Your task to perform on an android device: Search for razer blade on bestbuy.com, select the first entry, add it to the cart, then select checkout. Image 0: 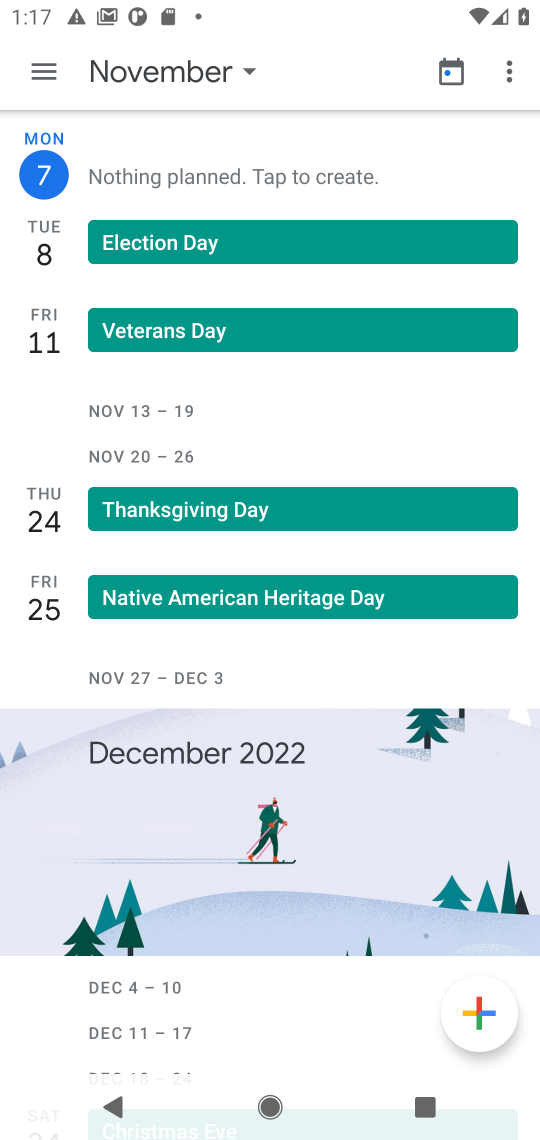
Step 0: press home button
Your task to perform on an android device: Search for razer blade on bestbuy.com, select the first entry, add it to the cart, then select checkout. Image 1: 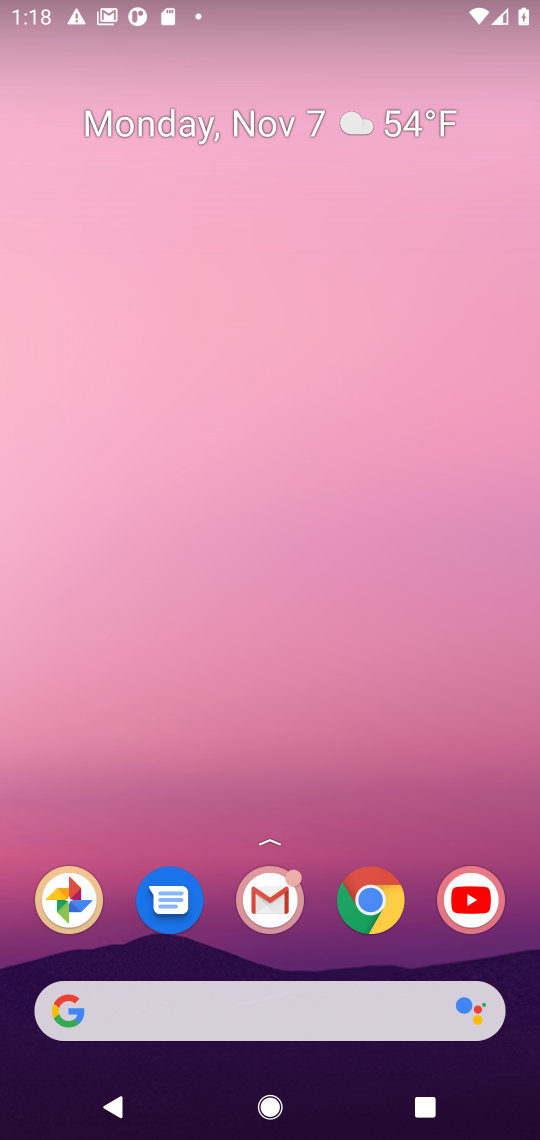
Step 1: click (315, 1029)
Your task to perform on an android device: Search for razer blade on bestbuy.com, select the first entry, add it to the cart, then select checkout. Image 2: 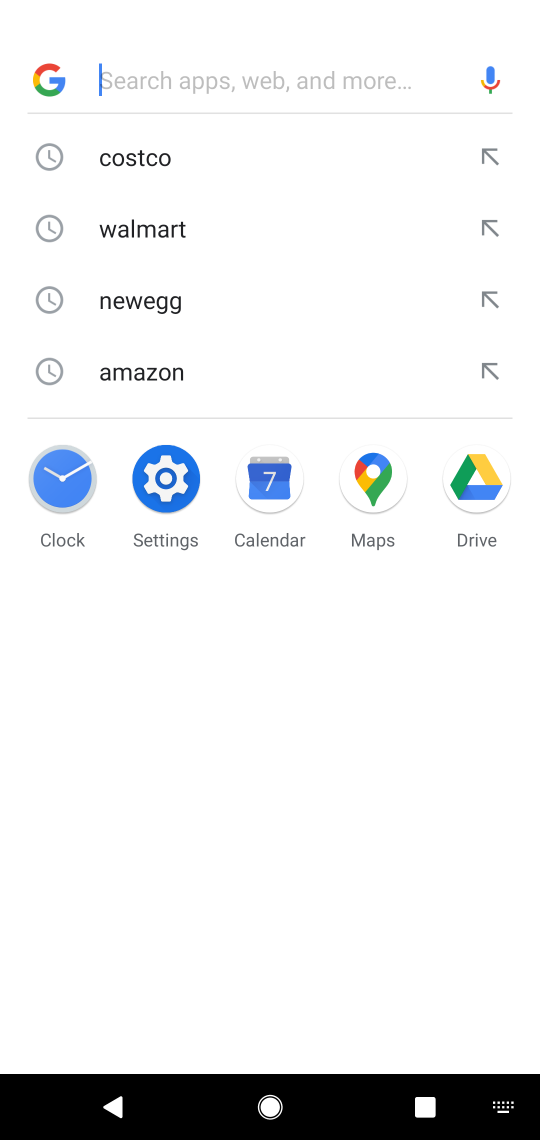
Step 2: type "betsbuy"
Your task to perform on an android device: Search for razer blade on bestbuy.com, select the first entry, add it to the cart, then select checkout. Image 3: 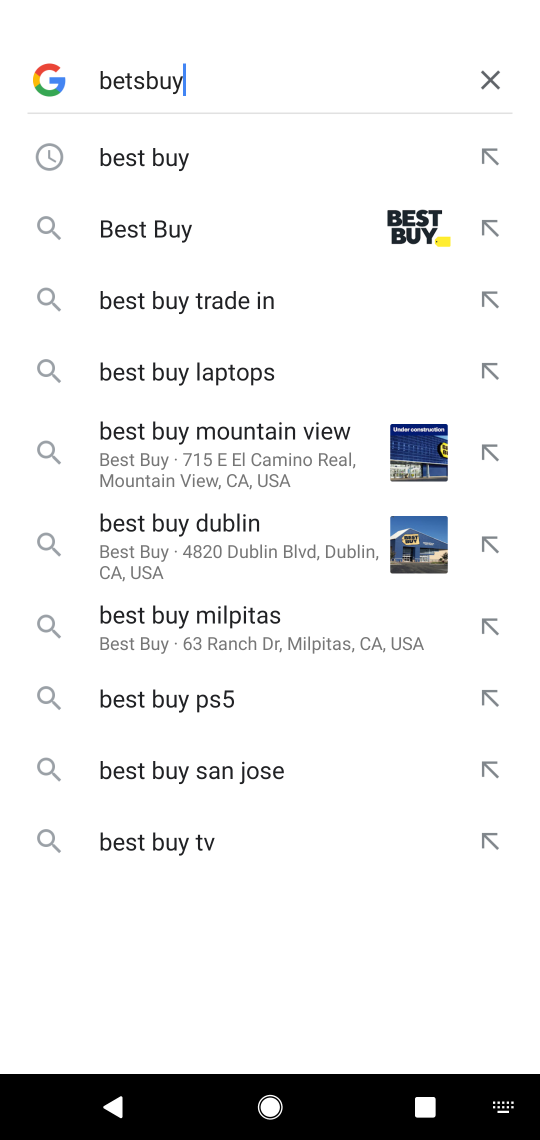
Step 3: click (422, 209)
Your task to perform on an android device: Search for razer blade on bestbuy.com, select the first entry, add it to the cart, then select checkout. Image 4: 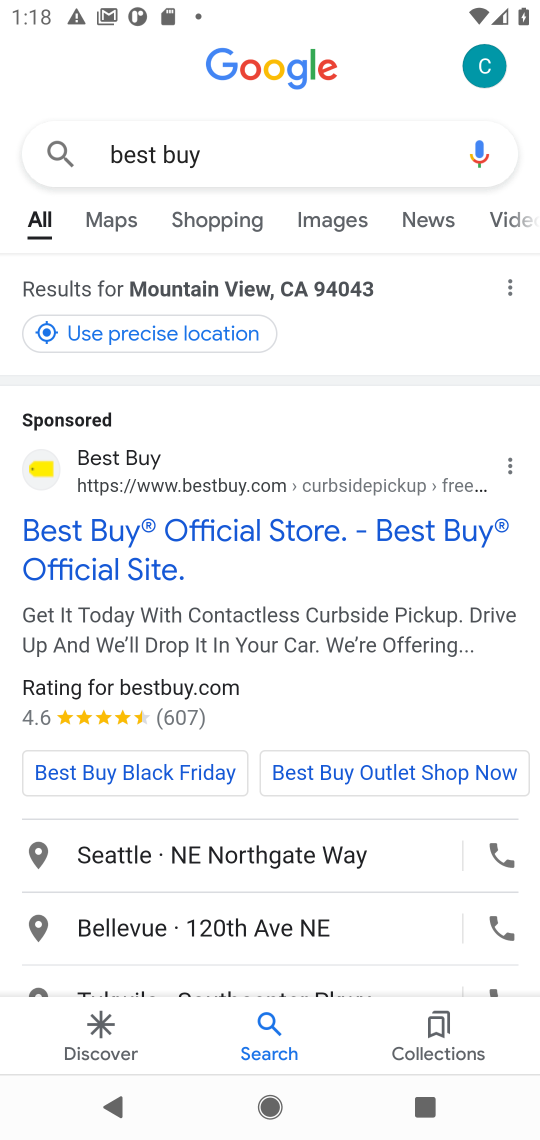
Step 4: click (219, 580)
Your task to perform on an android device: Search for razer blade on bestbuy.com, select the first entry, add it to the cart, then select checkout. Image 5: 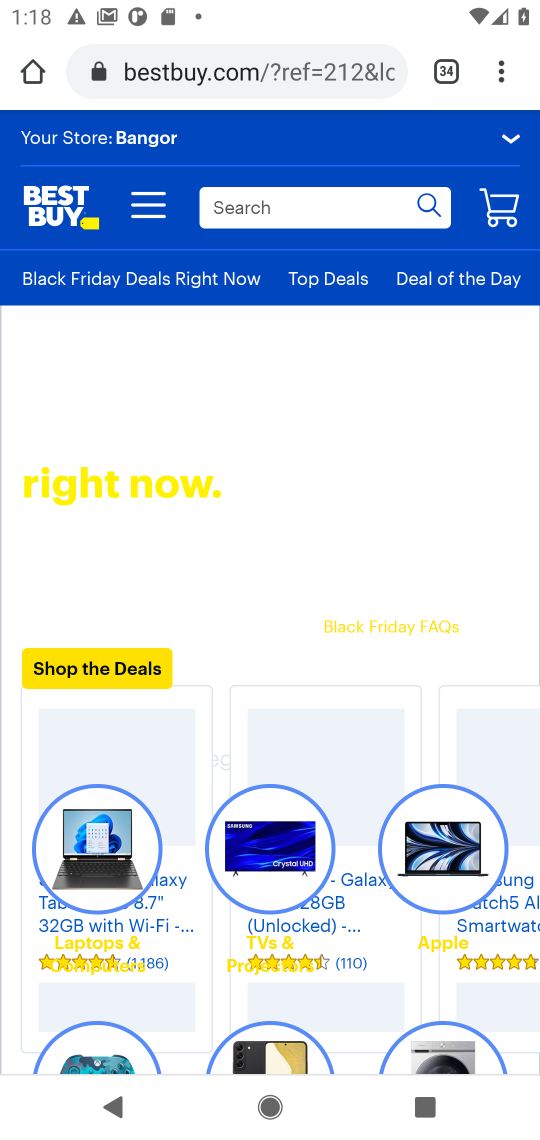
Step 5: click (254, 215)
Your task to perform on an android device: Search for razer blade on bestbuy.com, select the first entry, add it to the cart, then select checkout. Image 6: 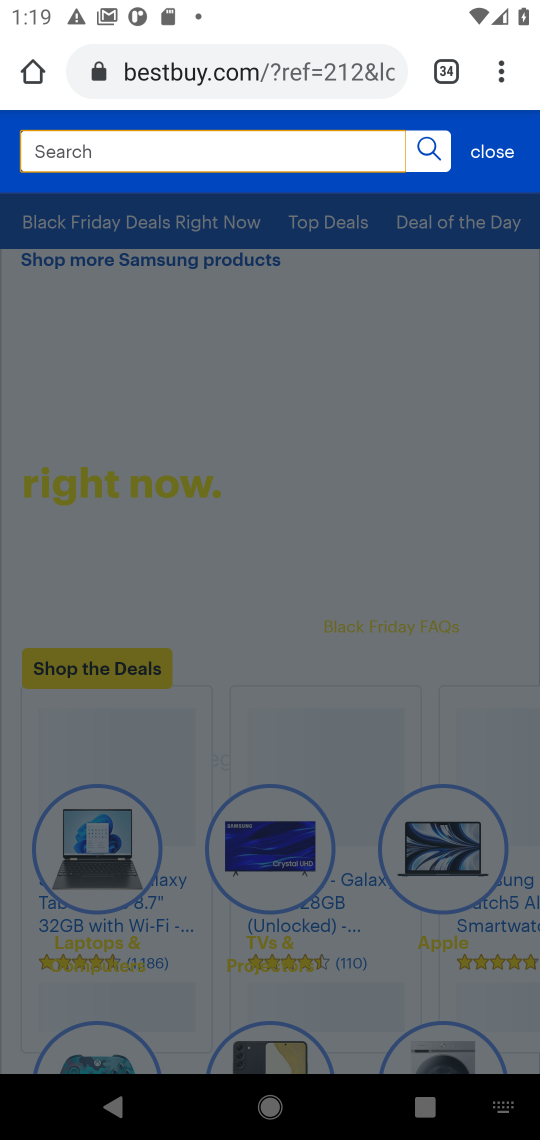
Step 6: task complete